Your task to perform on an android device: Do I have any events today? Image 0: 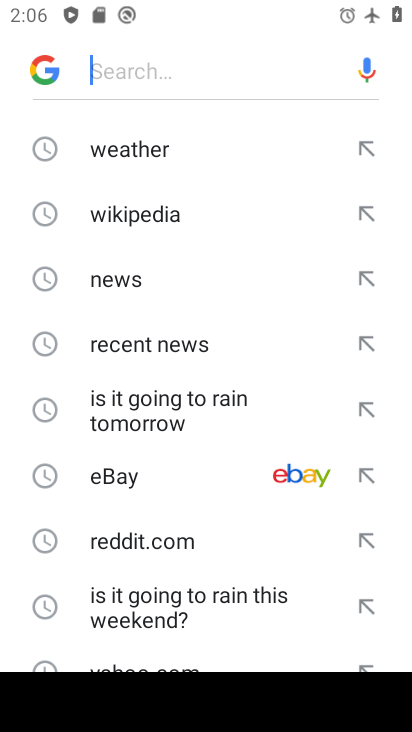
Step 0: press home button
Your task to perform on an android device: Do I have any events today? Image 1: 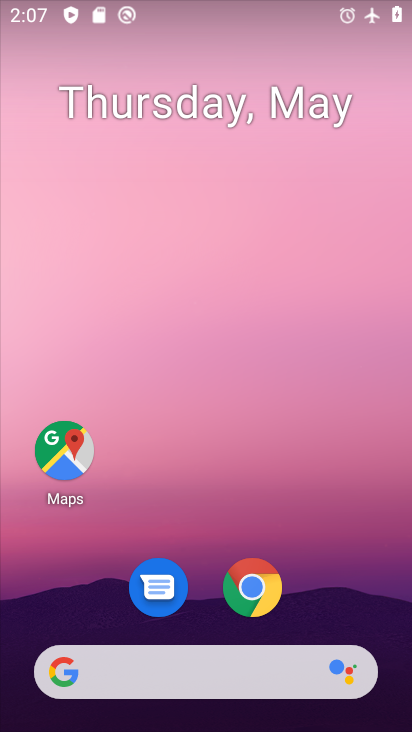
Step 1: drag from (278, 487) to (189, 62)
Your task to perform on an android device: Do I have any events today? Image 2: 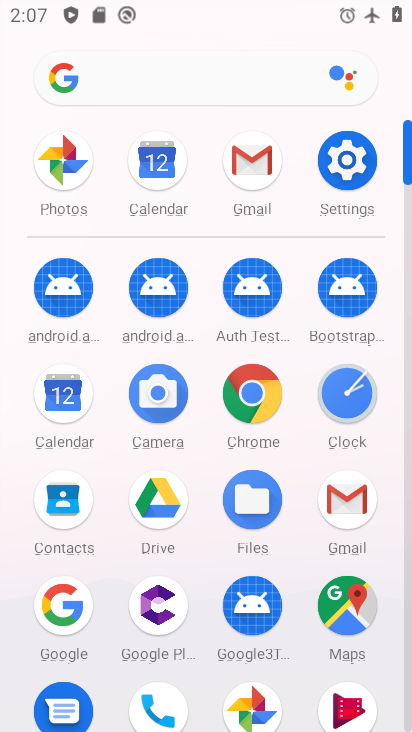
Step 2: click (64, 402)
Your task to perform on an android device: Do I have any events today? Image 3: 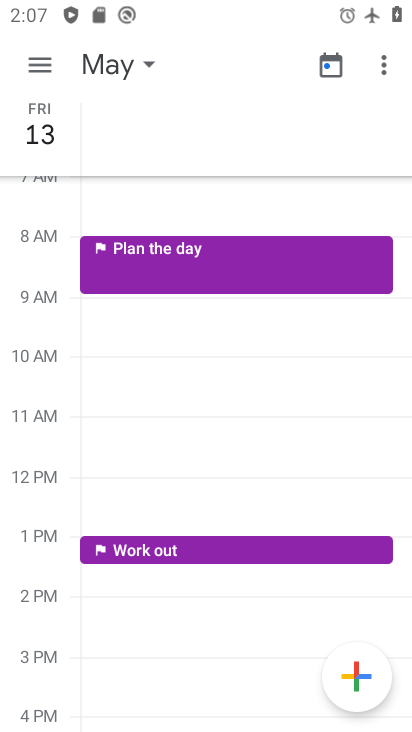
Step 3: drag from (216, 411) to (155, 222)
Your task to perform on an android device: Do I have any events today? Image 4: 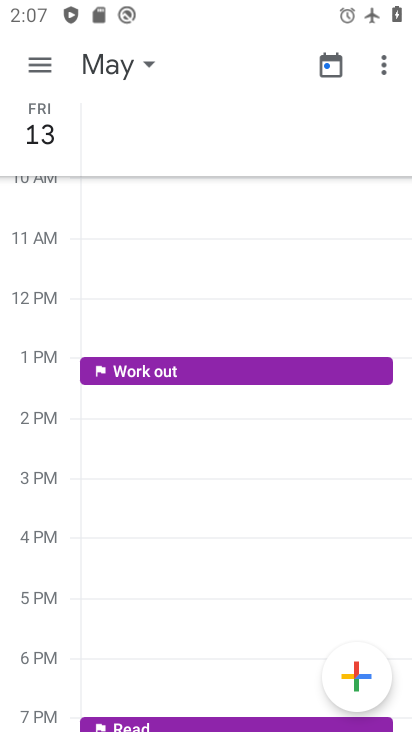
Step 4: drag from (228, 452) to (217, 377)
Your task to perform on an android device: Do I have any events today? Image 5: 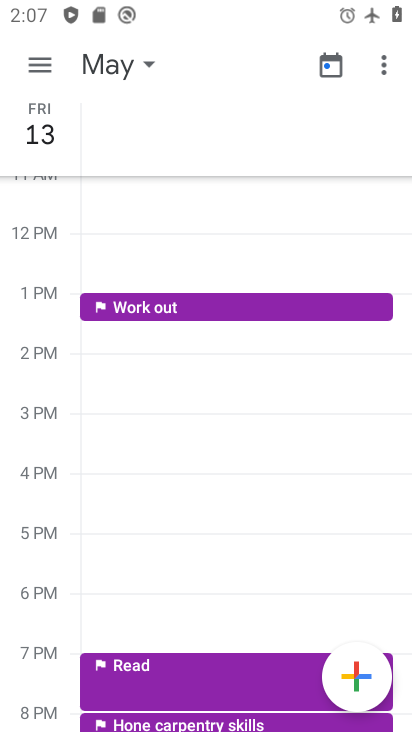
Step 5: click (148, 63)
Your task to perform on an android device: Do I have any events today? Image 6: 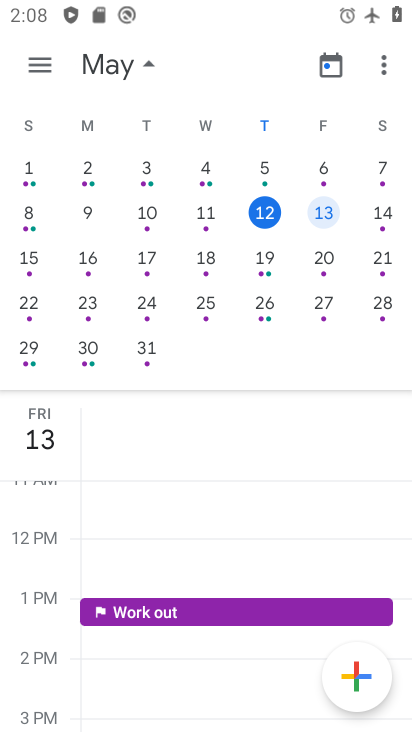
Step 6: task complete